Your task to perform on an android device: What's the weather going to be tomorrow? Image 0: 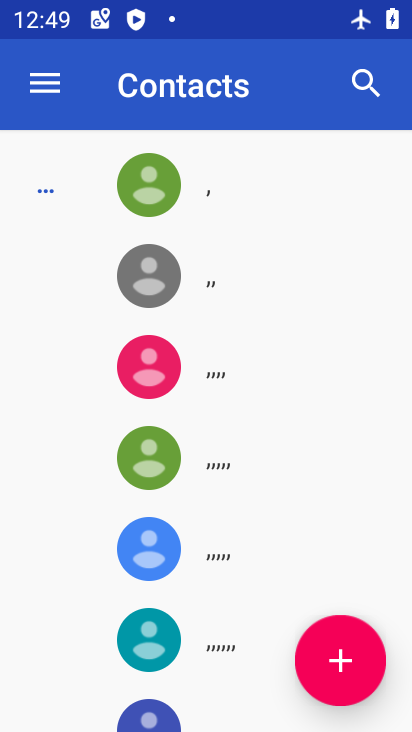
Step 0: press home button
Your task to perform on an android device: What's the weather going to be tomorrow? Image 1: 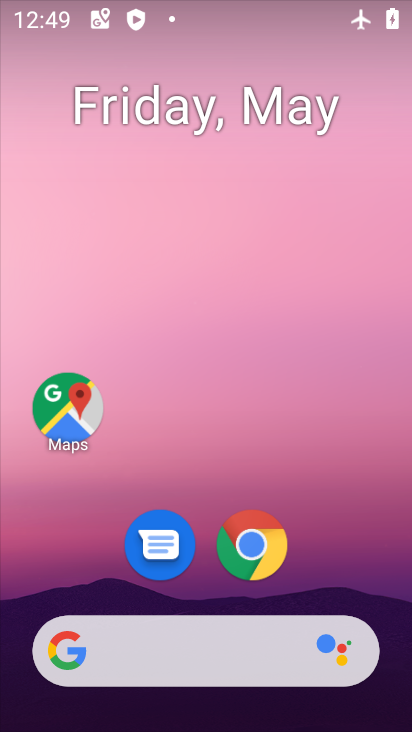
Step 1: click (215, 638)
Your task to perform on an android device: What's the weather going to be tomorrow? Image 2: 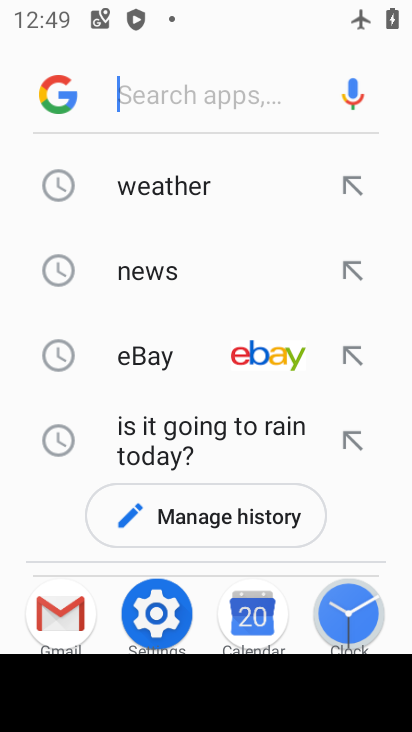
Step 2: click (172, 190)
Your task to perform on an android device: What's the weather going to be tomorrow? Image 3: 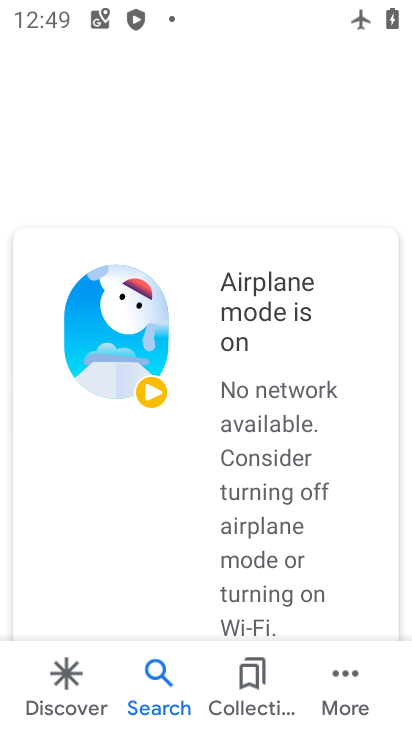
Step 3: drag from (174, 10) to (100, 537)
Your task to perform on an android device: What's the weather going to be tomorrow? Image 4: 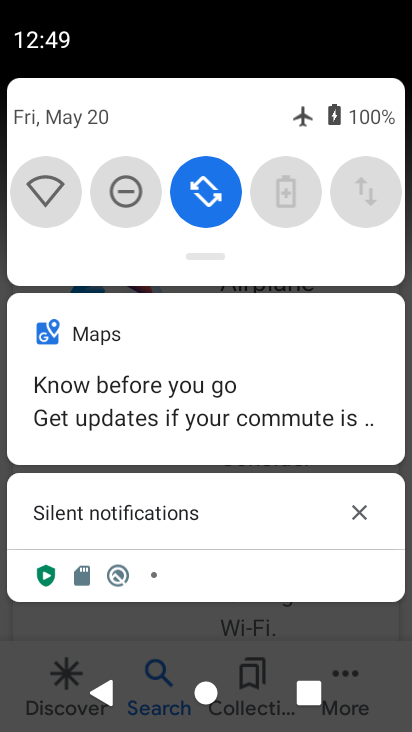
Step 4: drag from (319, 163) to (1, 167)
Your task to perform on an android device: What's the weather going to be tomorrow? Image 5: 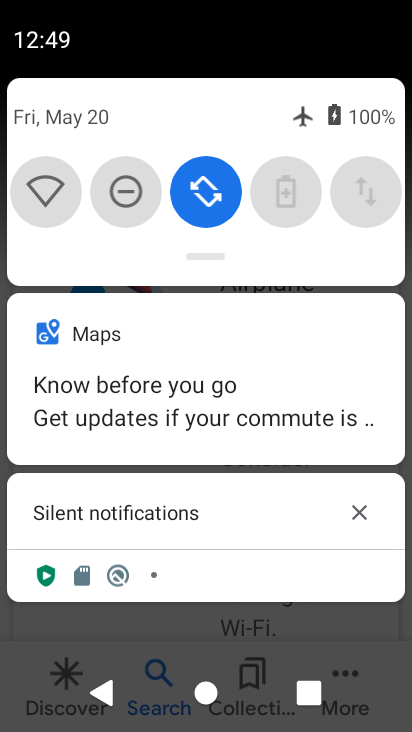
Step 5: drag from (186, 242) to (188, 557)
Your task to perform on an android device: What's the weather going to be tomorrow? Image 6: 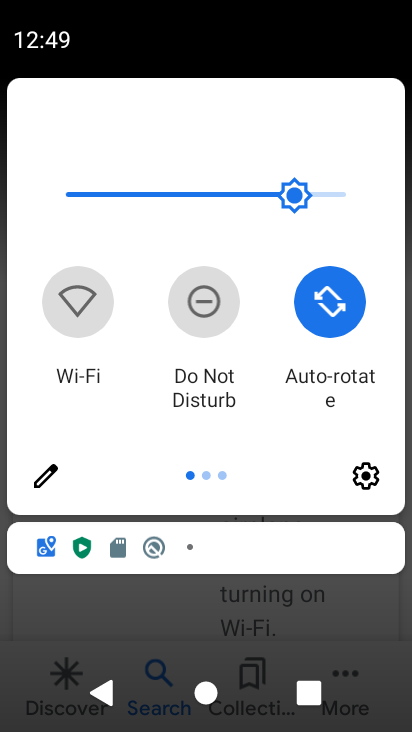
Step 6: drag from (293, 424) to (19, 434)
Your task to perform on an android device: What's the weather going to be tomorrow? Image 7: 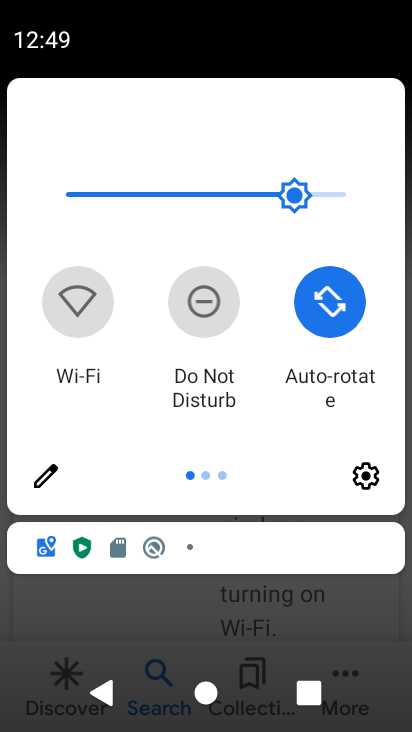
Step 7: drag from (363, 395) to (3, 409)
Your task to perform on an android device: What's the weather going to be tomorrow? Image 8: 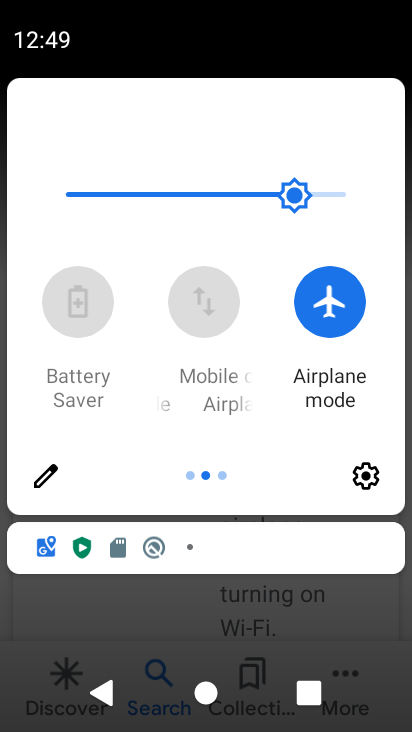
Step 8: click (309, 298)
Your task to perform on an android device: What's the weather going to be tomorrow? Image 9: 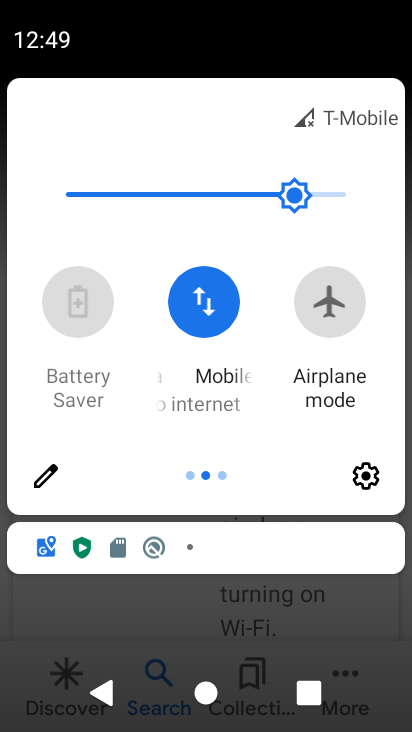
Step 9: drag from (224, 609) to (190, 111)
Your task to perform on an android device: What's the weather going to be tomorrow? Image 10: 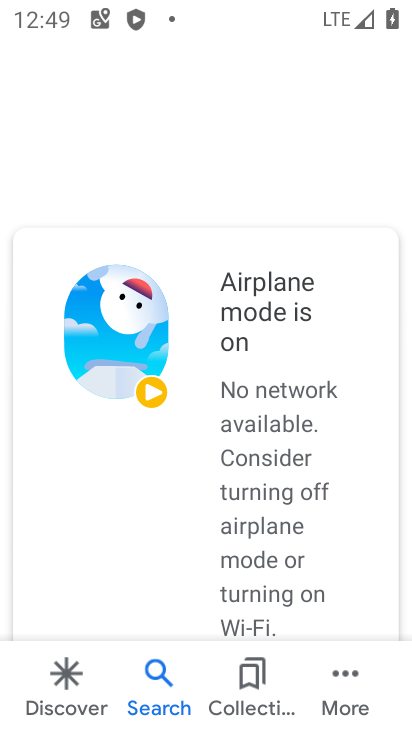
Step 10: drag from (216, 494) to (185, 128)
Your task to perform on an android device: What's the weather going to be tomorrow? Image 11: 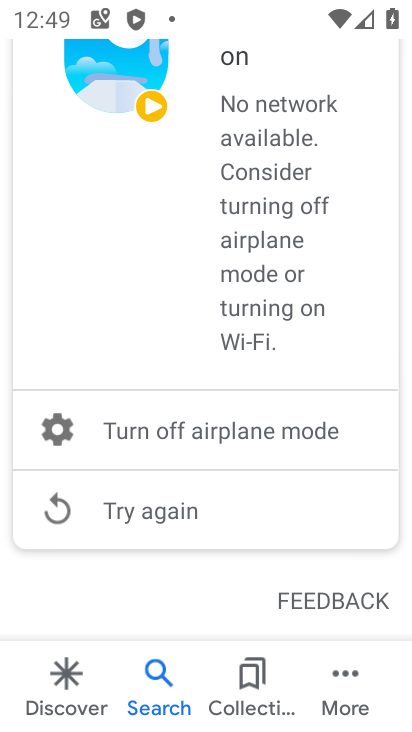
Step 11: click (154, 509)
Your task to perform on an android device: What's the weather going to be tomorrow? Image 12: 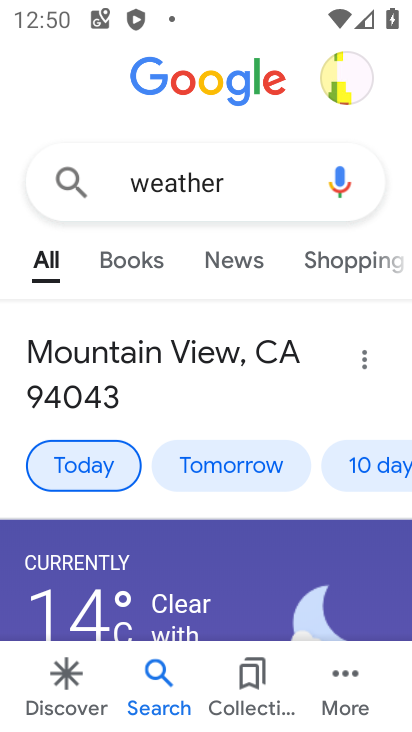
Step 12: click (240, 459)
Your task to perform on an android device: What's the weather going to be tomorrow? Image 13: 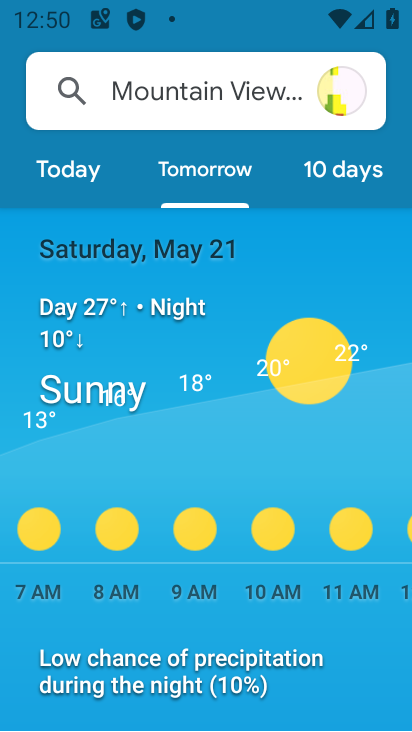
Step 13: task complete